Your task to perform on an android device: open a new tab in the chrome app Image 0: 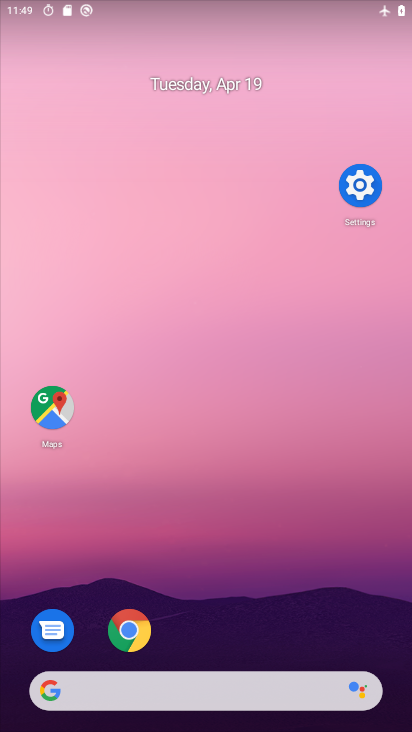
Step 0: drag from (252, 531) to (294, 93)
Your task to perform on an android device: open a new tab in the chrome app Image 1: 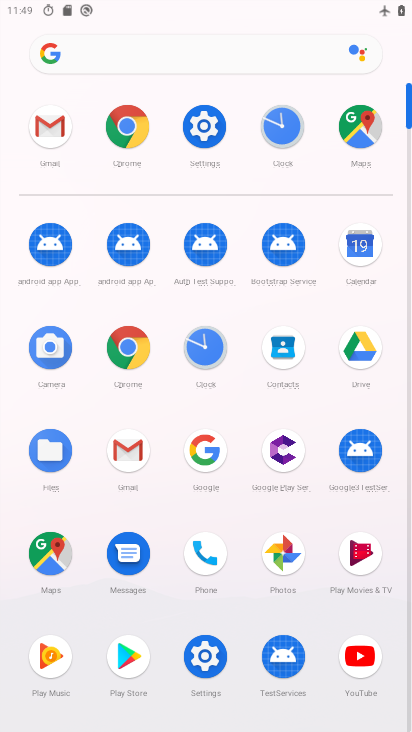
Step 1: click (130, 367)
Your task to perform on an android device: open a new tab in the chrome app Image 2: 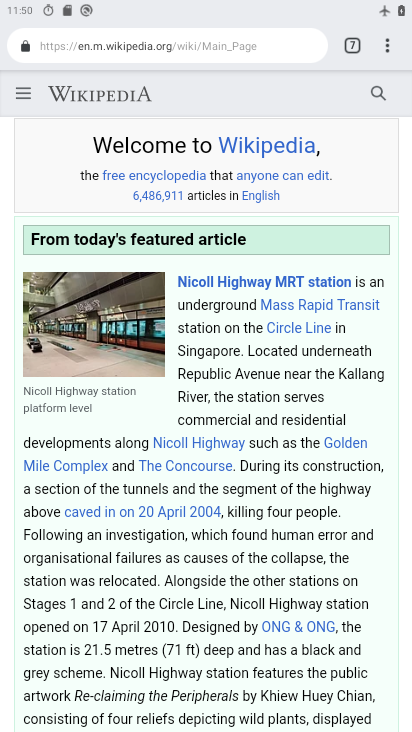
Step 2: drag from (356, 41) to (318, 349)
Your task to perform on an android device: open a new tab in the chrome app Image 3: 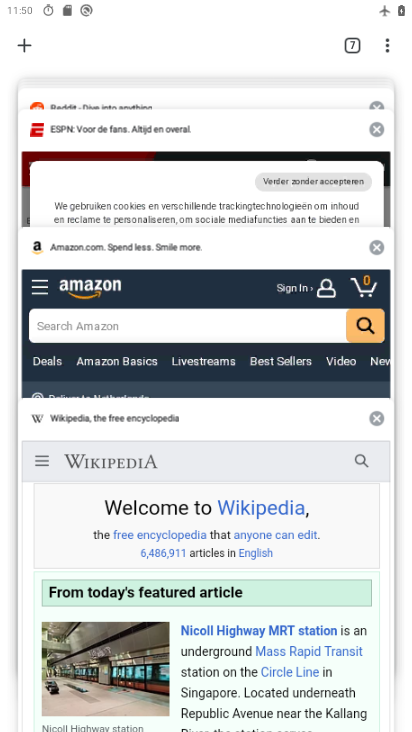
Step 3: click (23, 42)
Your task to perform on an android device: open a new tab in the chrome app Image 4: 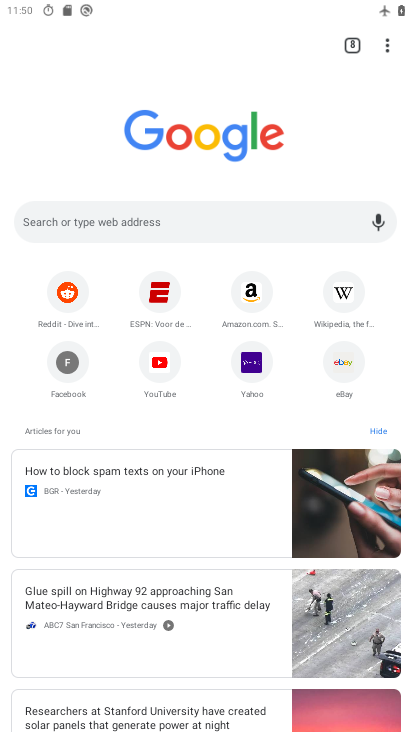
Step 4: task complete